Your task to perform on an android device: turn on translation in the chrome app Image 0: 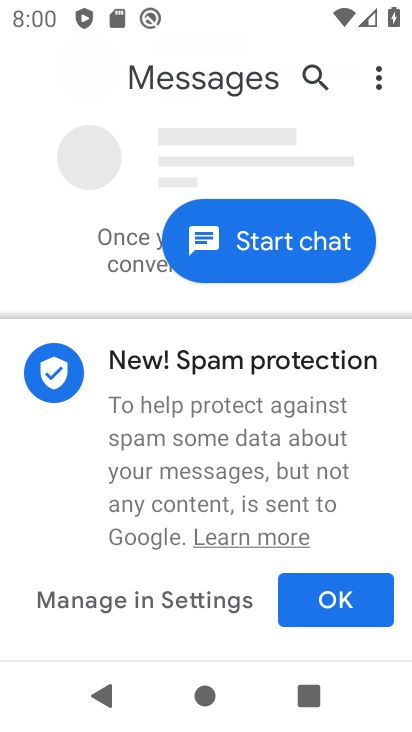
Step 0: press home button
Your task to perform on an android device: turn on translation in the chrome app Image 1: 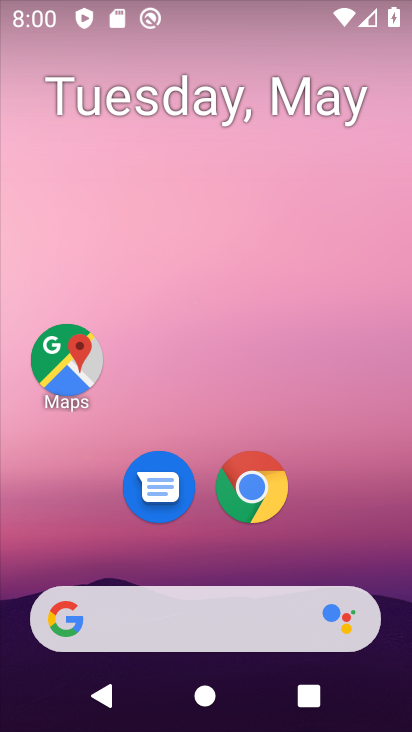
Step 1: drag from (345, 497) to (411, 62)
Your task to perform on an android device: turn on translation in the chrome app Image 2: 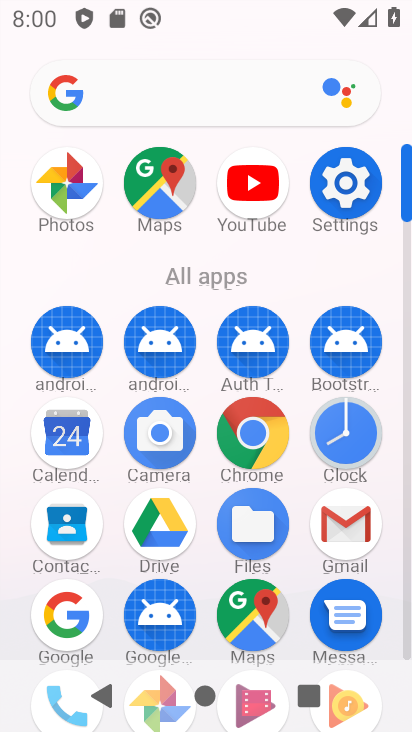
Step 2: click (259, 428)
Your task to perform on an android device: turn on translation in the chrome app Image 3: 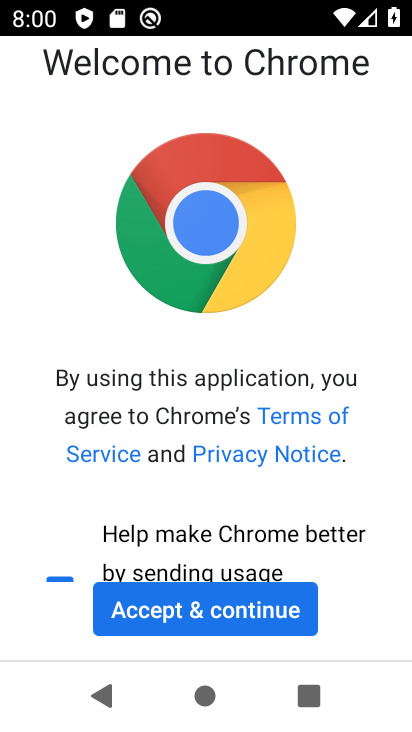
Step 3: click (261, 605)
Your task to perform on an android device: turn on translation in the chrome app Image 4: 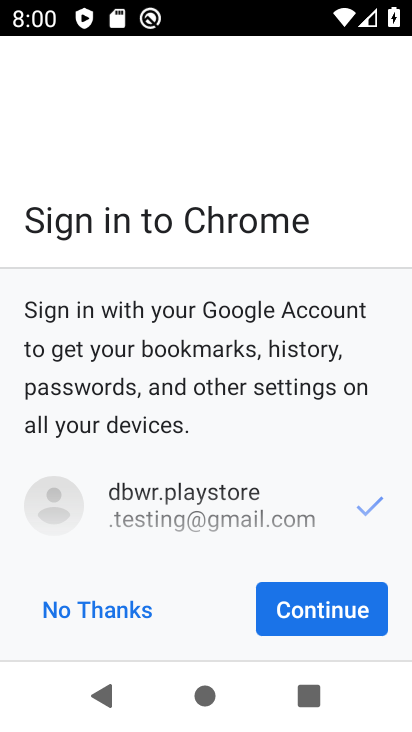
Step 4: click (279, 605)
Your task to perform on an android device: turn on translation in the chrome app Image 5: 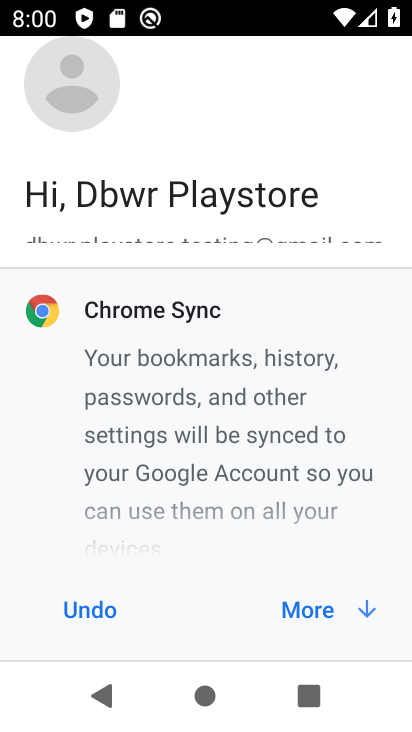
Step 5: click (279, 605)
Your task to perform on an android device: turn on translation in the chrome app Image 6: 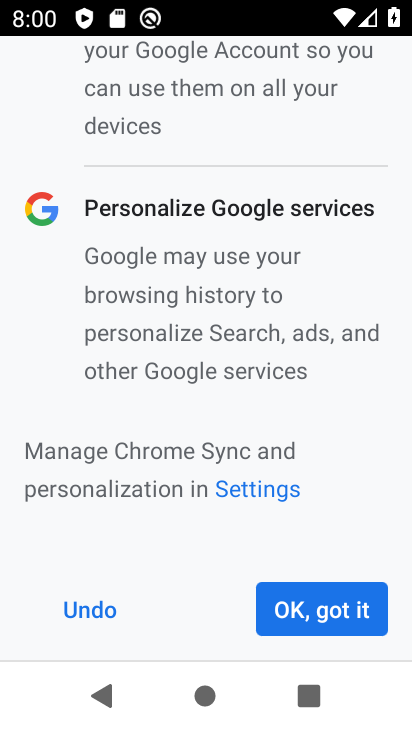
Step 6: click (279, 605)
Your task to perform on an android device: turn on translation in the chrome app Image 7: 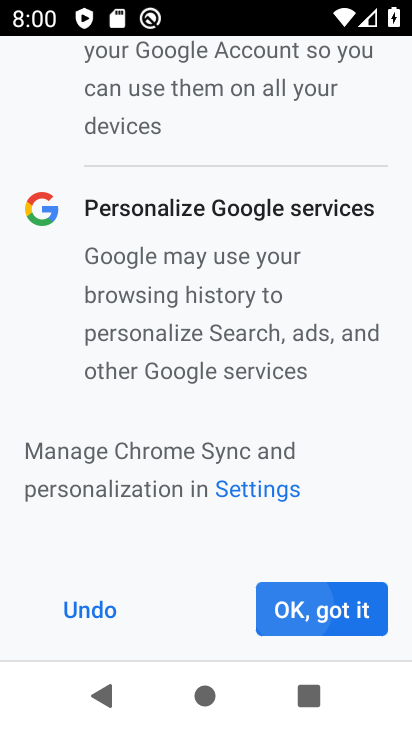
Step 7: click (279, 605)
Your task to perform on an android device: turn on translation in the chrome app Image 8: 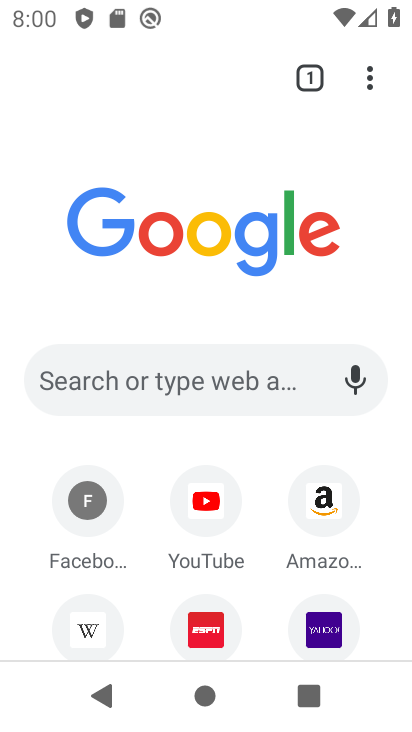
Step 8: click (364, 78)
Your task to perform on an android device: turn on translation in the chrome app Image 9: 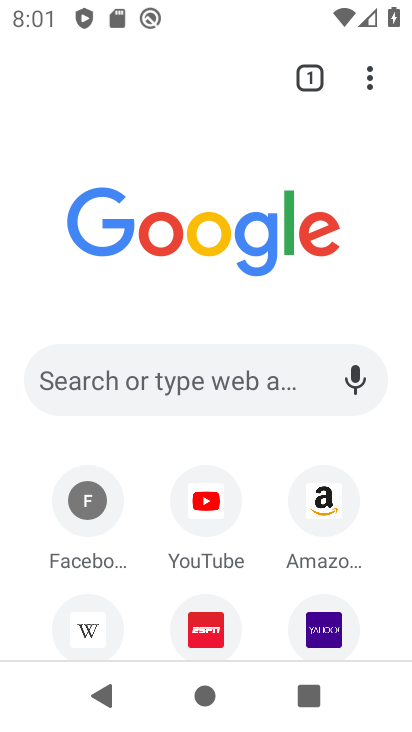
Step 9: drag from (376, 83) to (188, 560)
Your task to perform on an android device: turn on translation in the chrome app Image 10: 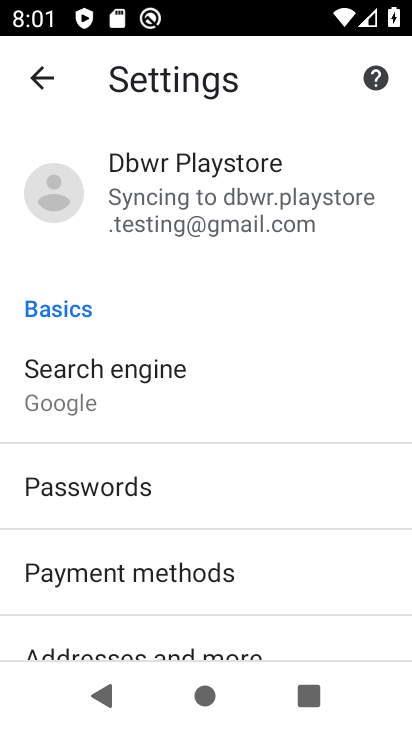
Step 10: drag from (297, 616) to (278, 231)
Your task to perform on an android device: turn on translation in the chrome app Image 11: 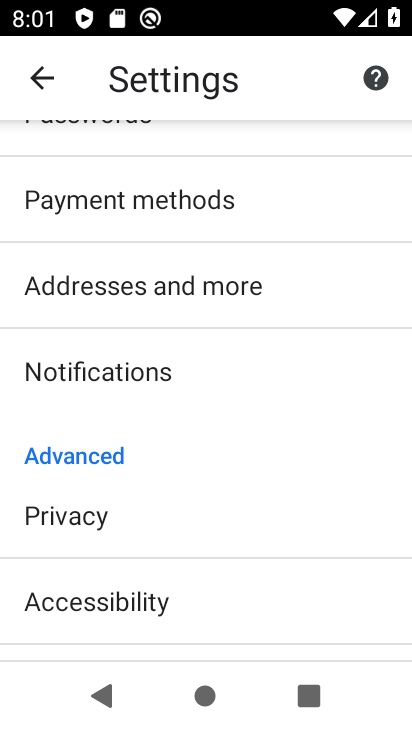
Step 11: drag from (276, 580) to (281, 204)
Your task to perform on an android device: turn on translation in the chrome app Image 12: 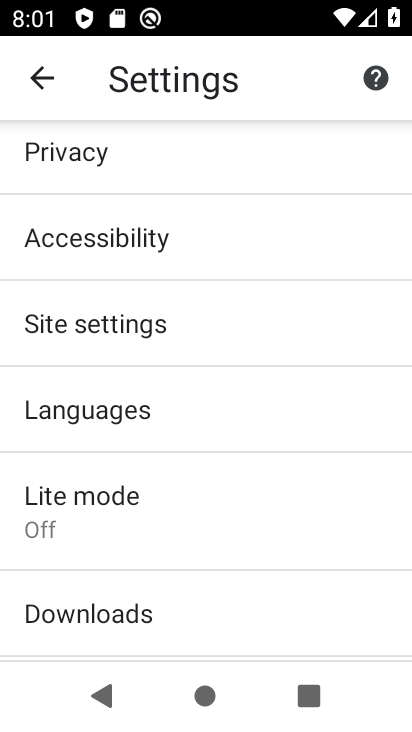
Step 12: click (106, 411)
Your task to perform on an android device: turn on translation in the chrome app Image 13: 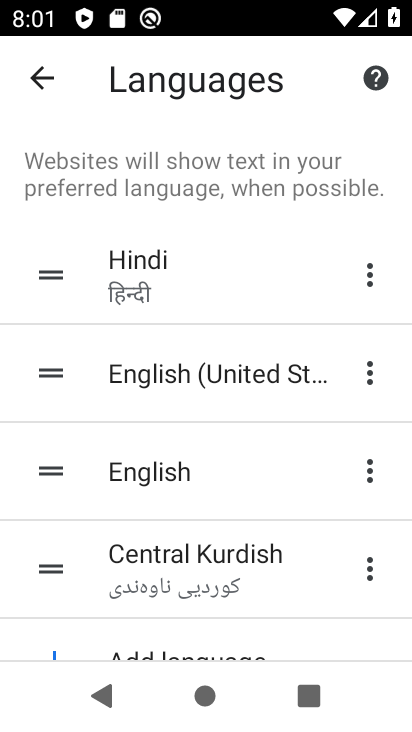
Step 13: drag from (316, 573) to (330, 201)
Your task to perform on an android device: turn on translation in the chrome app Image 14: 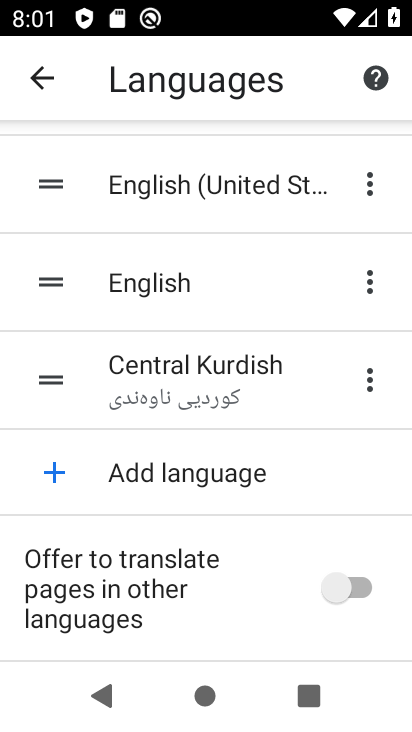
Step 14: click (355, 582)
Your task to perform on an android device: turn on translation in the chrome app Image 15: 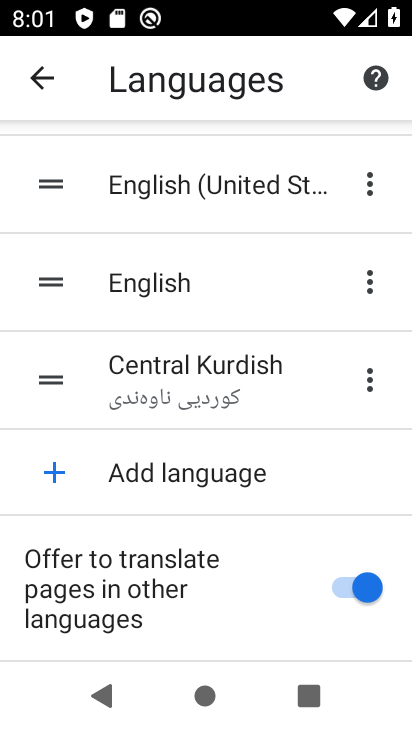
Step 15: task complete